Your task to perform on an android device: check android version Image 0: 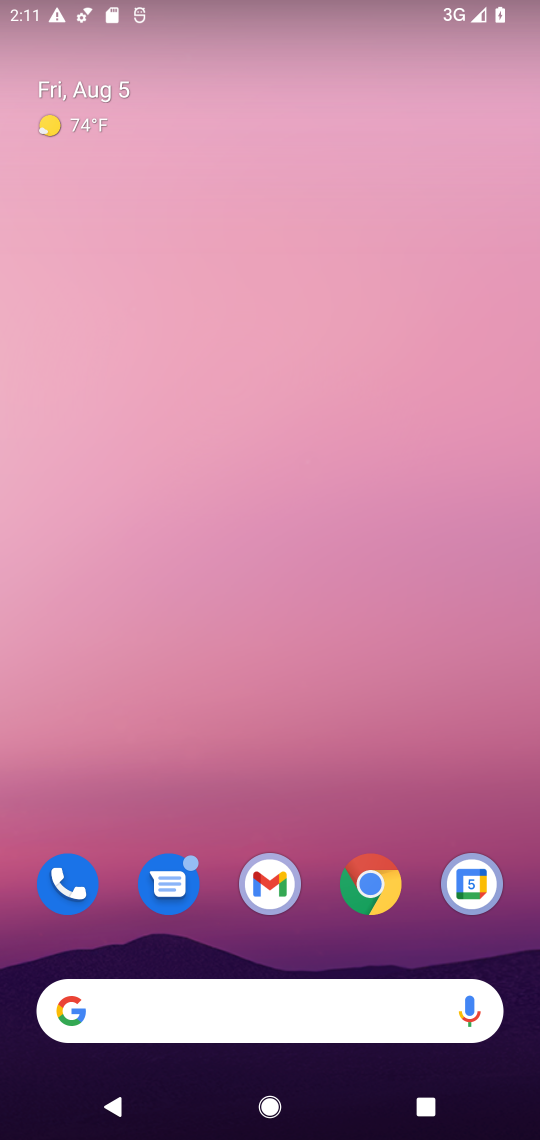
Step 0: drag from (365, 1003) to (314, 80)
Your task to perform on an android device: check android version Image 1: 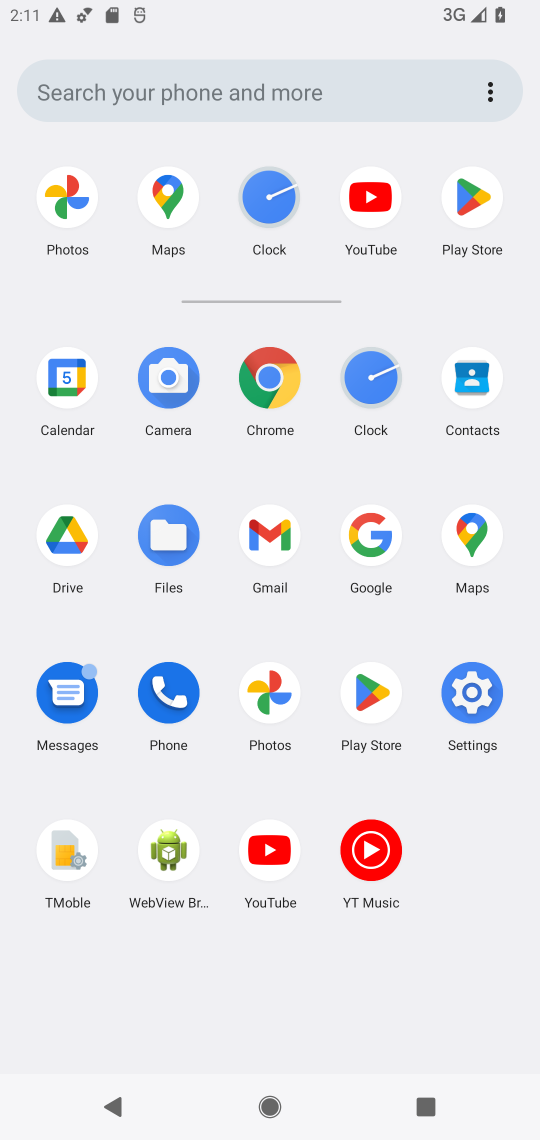
Step 1: click (470, 710)
Your task to perform on an android device: check android version Image 2: 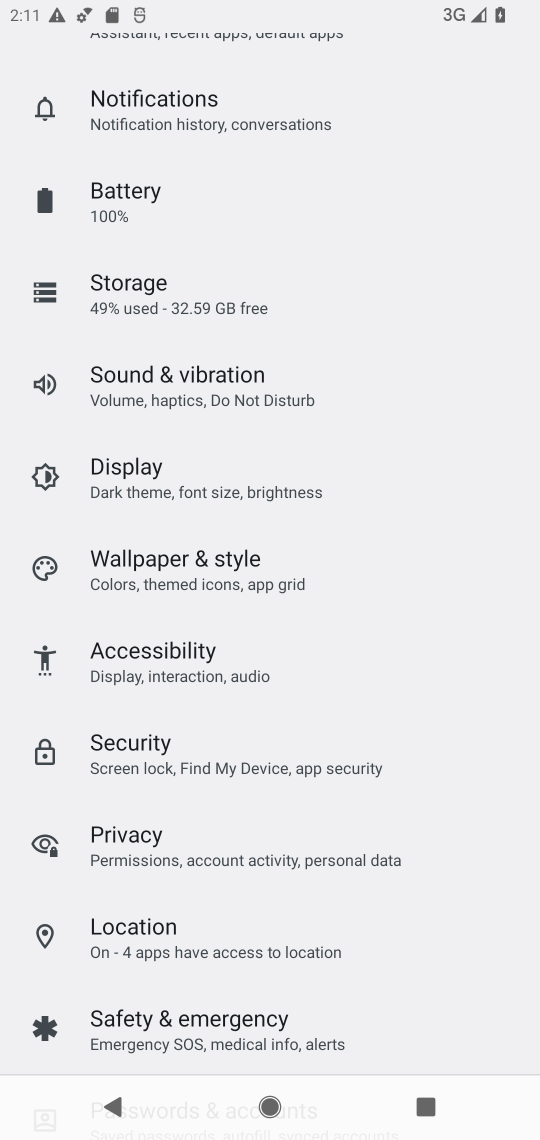
Step 2: drag from (337, 982) to (318, 21)
Your task to perform on an android device: check android version Image 3: 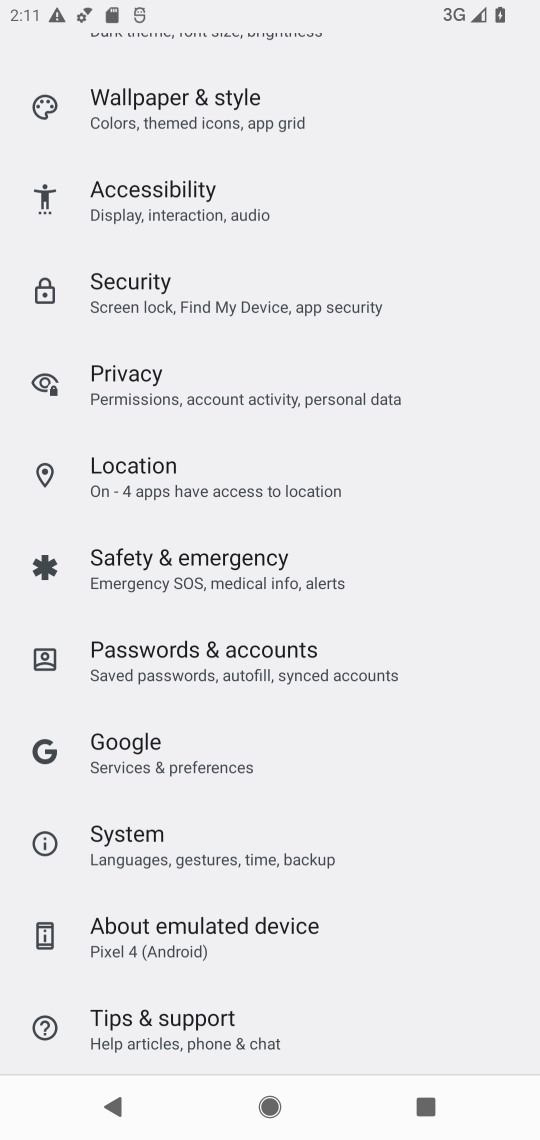
Step 3: drag from (197, 1002) to (236, 158)
Your task to perform on an android device: check android version Image 4: 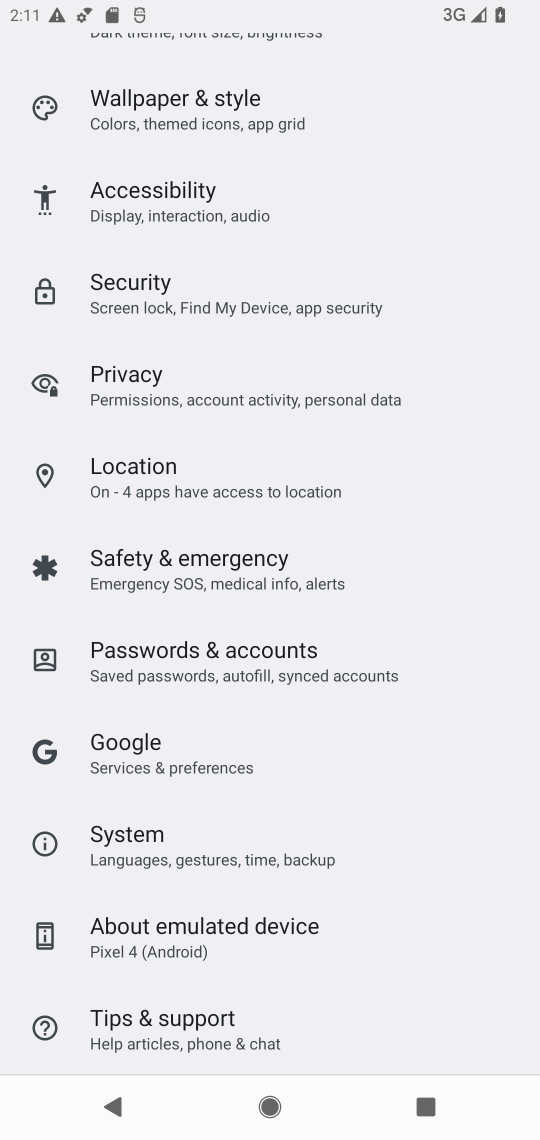
Step 4: click (240, 948)
Your task to perform on an android device: check android version Image 5: 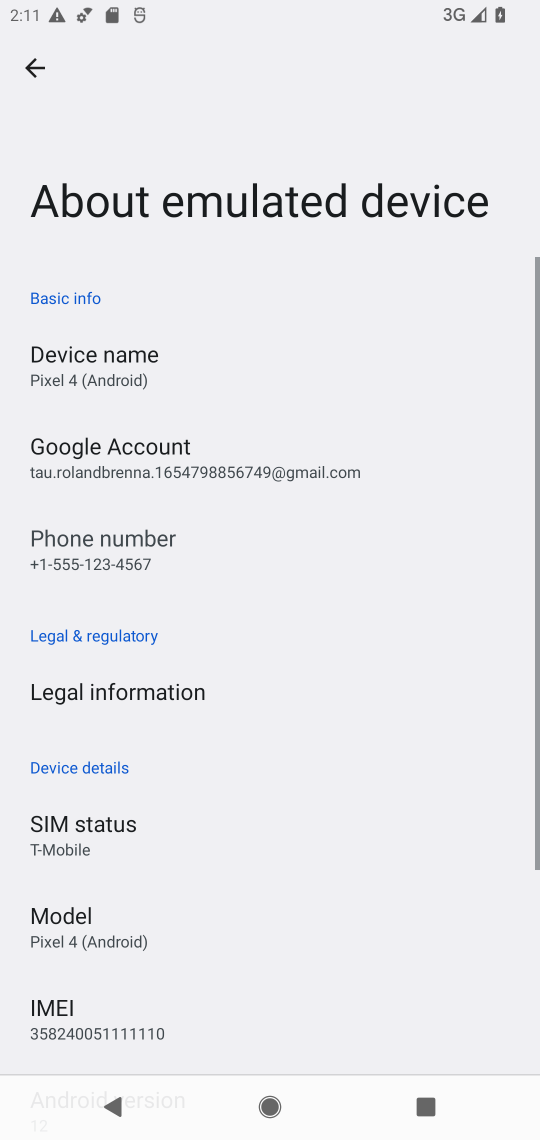
Step 5: drag from (240, 948) to (240, 369)
Your task to perform on an android device: check android version Image 6: 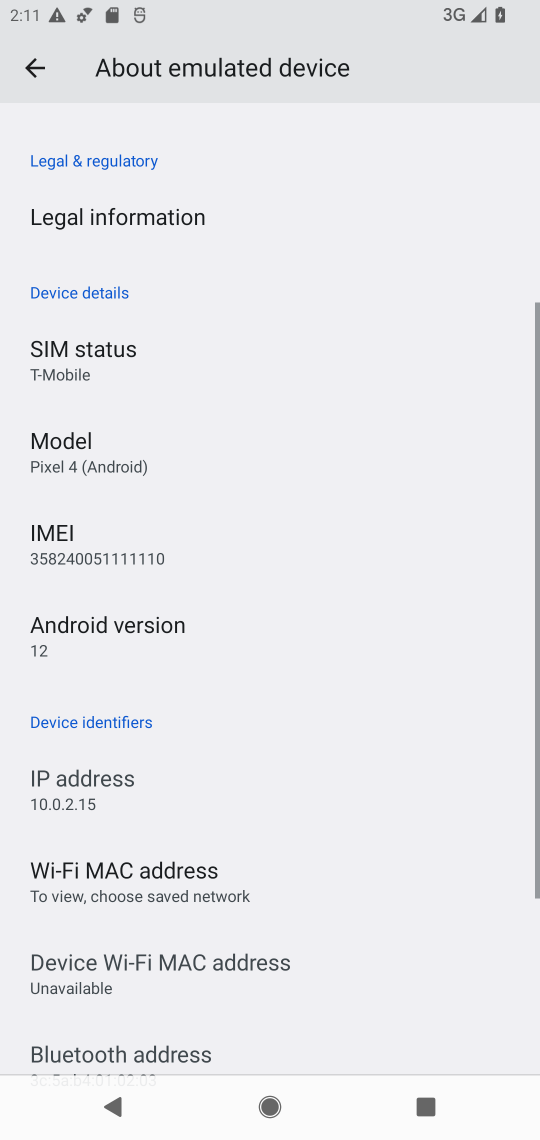
Step 6: click (93, 627)
Your task to perform on an android device: check android version Image 7: 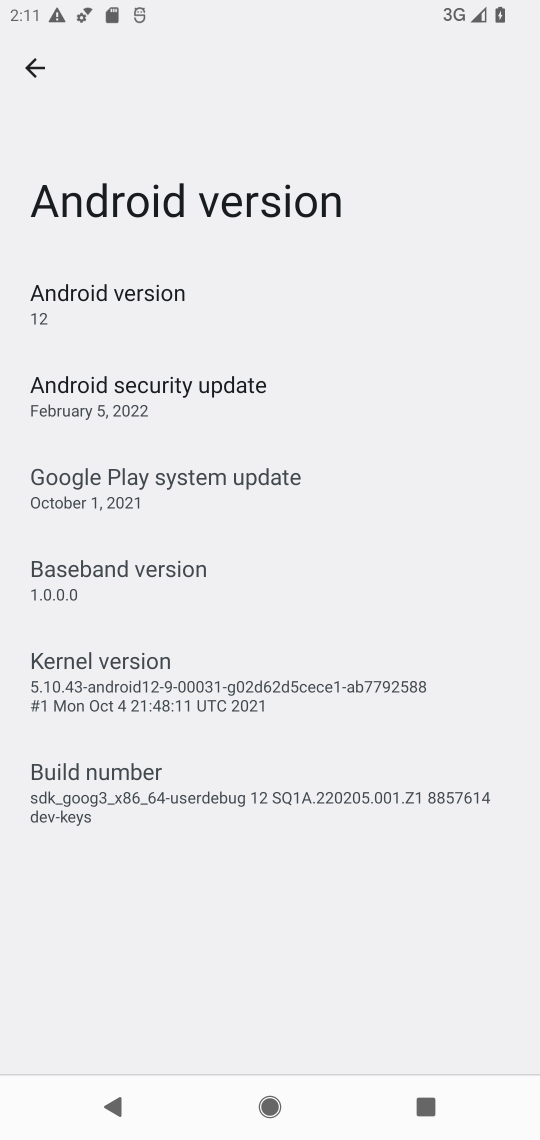
Step 7: task complete